Your task to perform on an android device: Add razer deathadder to the cart on bestbuy.com, then select checkout. Image 0: 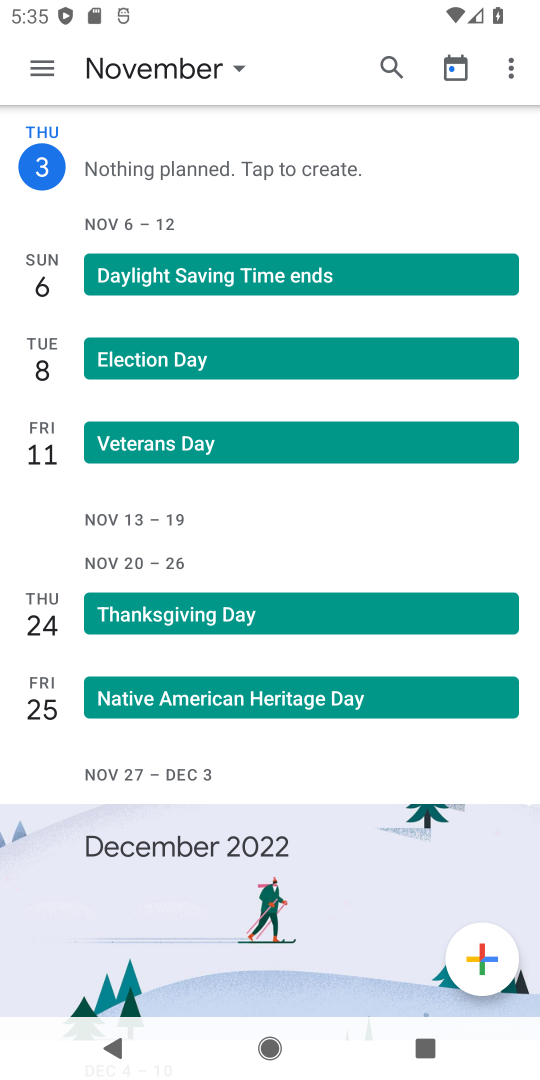
Step 0: press home button
Your task to perform on an android device: Add razer deathadder to the cart on bestbuy.com, then select checkout. Image 1: 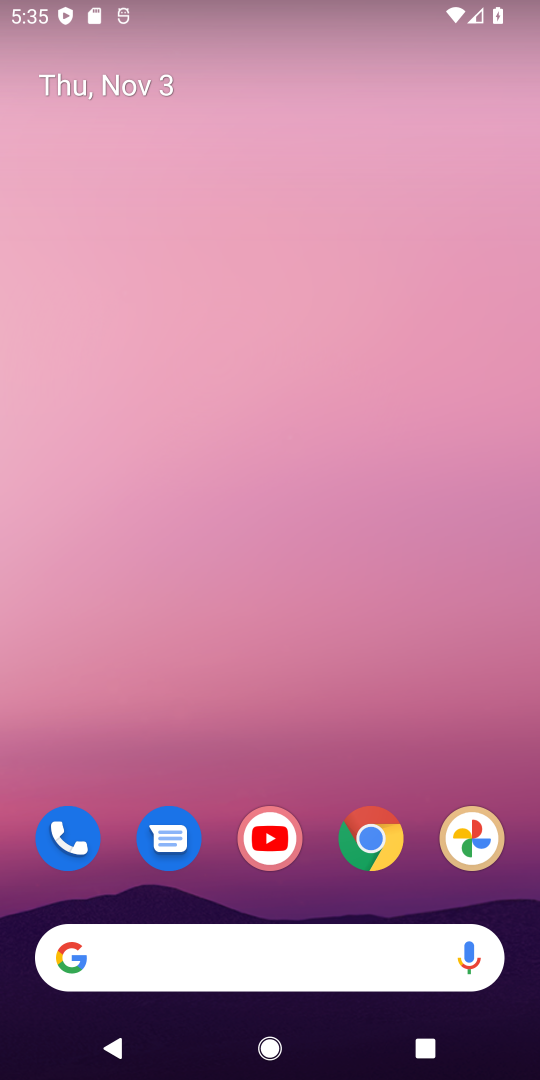
Step 1: click (361, 841)
Your task to perform on an android device: Add razer deathadder to the cart on bestbuy.com, then select checkout. Image 2: 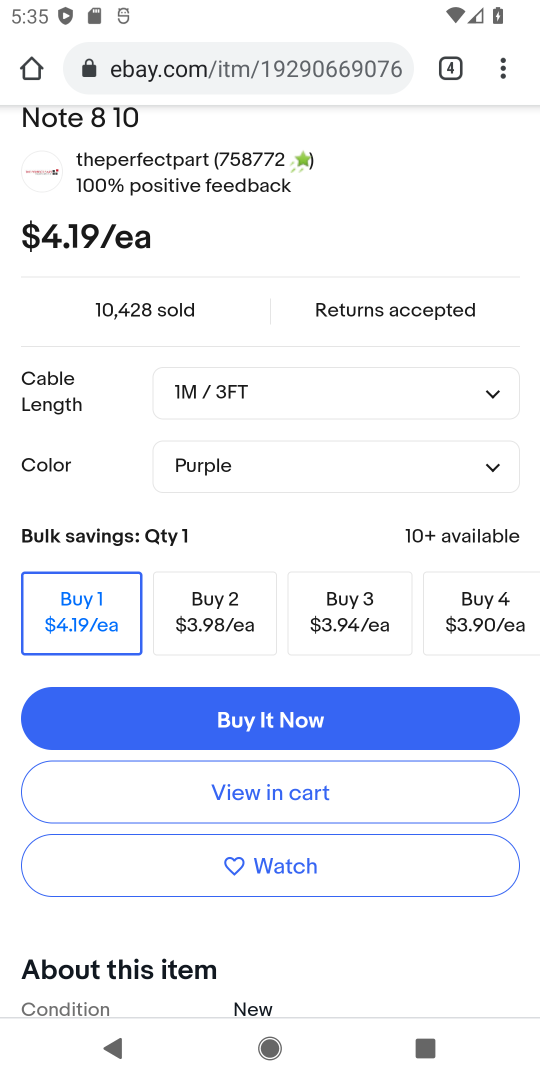
Step 2: click (458, 59)
Your task to perform on an android device: Add razer deathadder to the cart on bestbuy.com, then select checkout. Image 3: 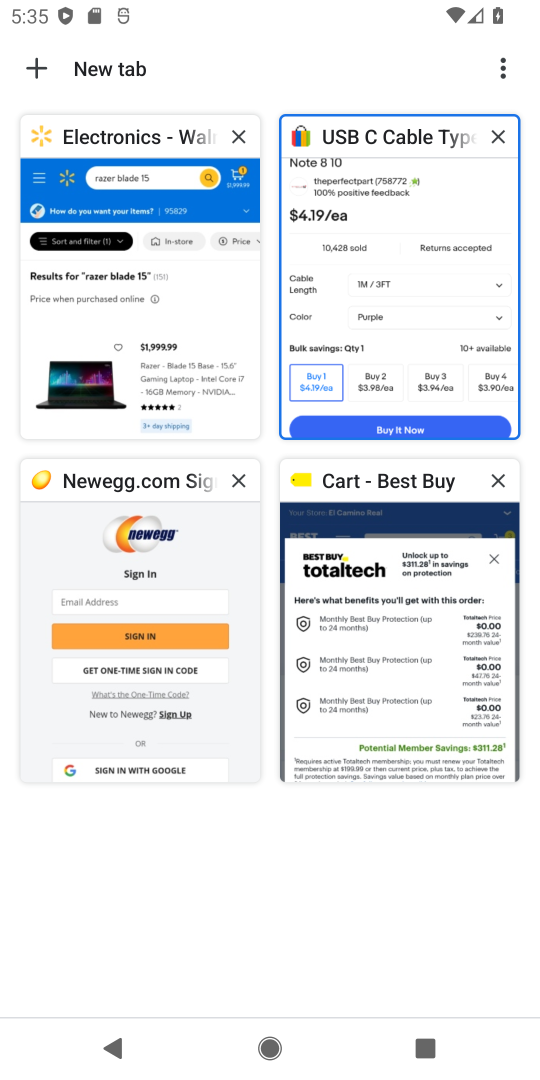
Step 3: click (381, 624)
Your task to perform on an android device: Add razer deathadder to the cart on bestbuy.com, then select checkout. Image 4: 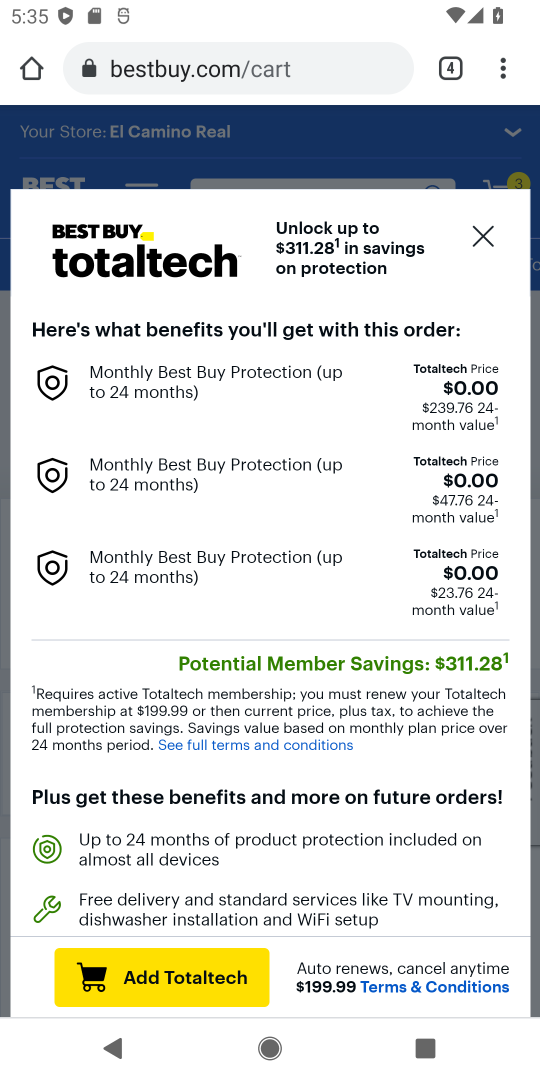
Step 4: click (477, 228)
Your task to perform on an android device: Add razer deathadder to the cart on bestbuy.com, then select checkout. Image 5: 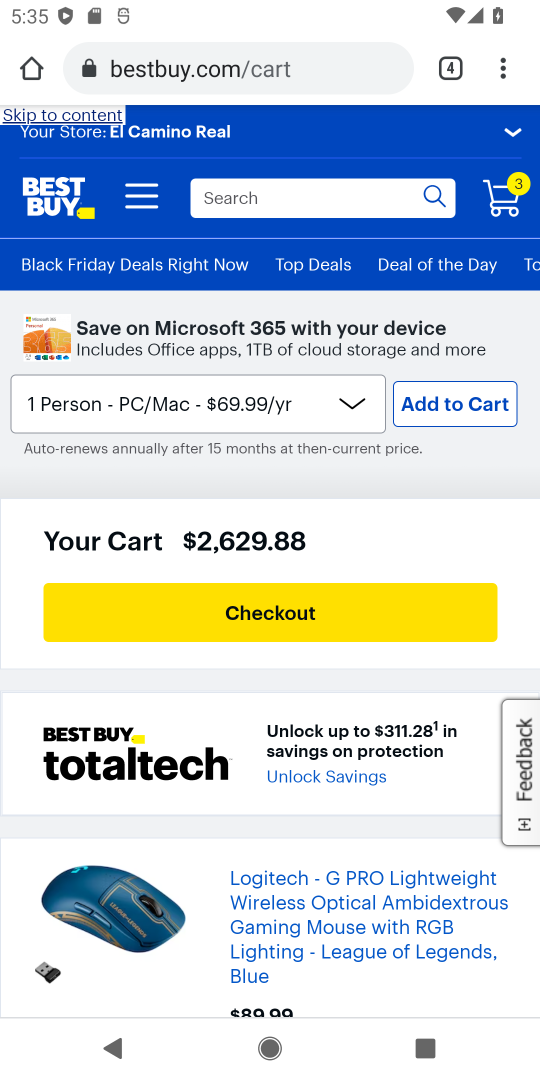
Step 5: click (277, 208)
Your task to perform on an android device: Add razer deathadder to the cart on bestbuy.com, then select checkout. Image 6: 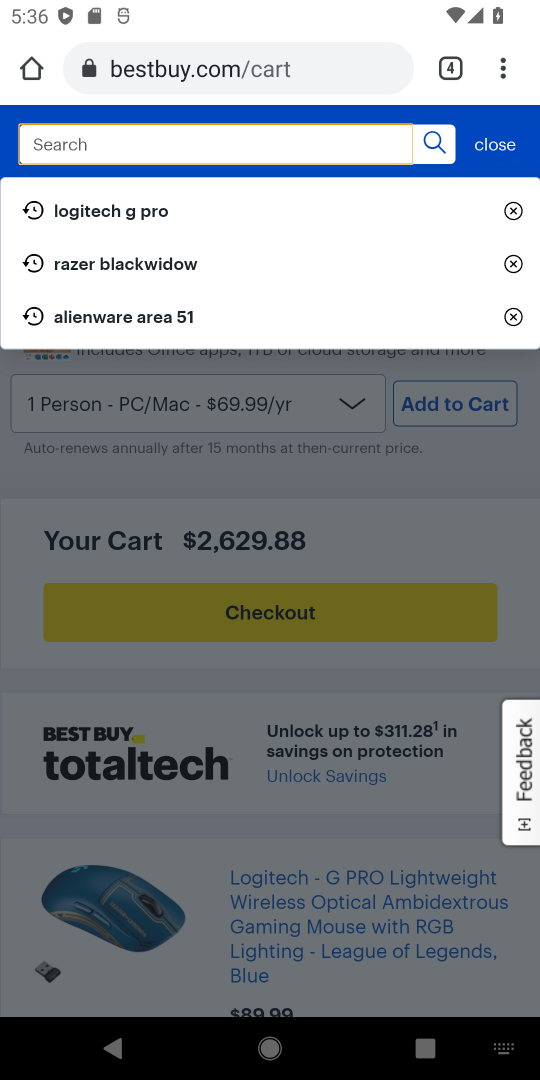
Step 6: type "razer deathadder"
Your task to perform on an android device: Add razer deathadder to the cart on bestbuy.com, then select checkout. Image 7: 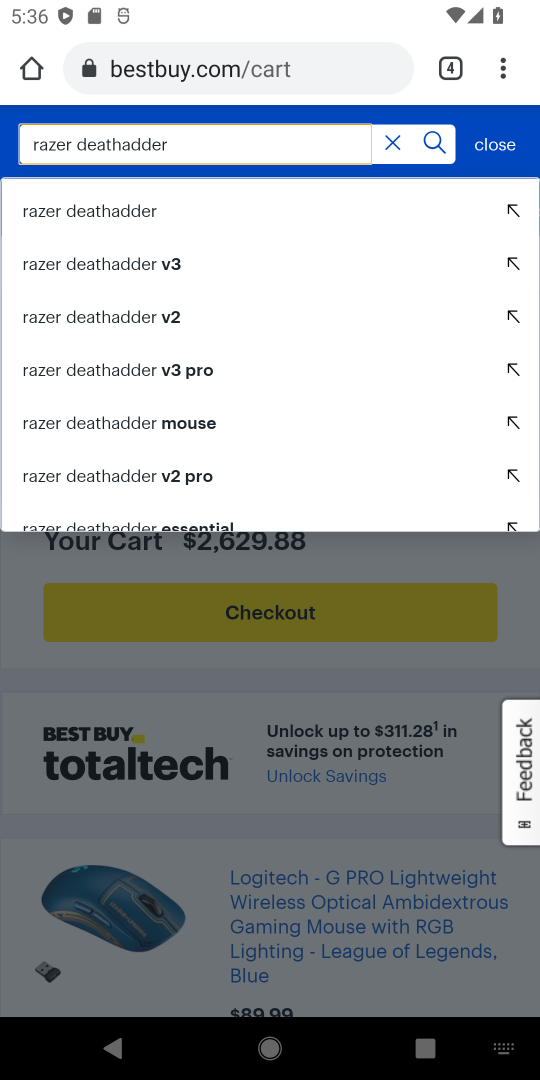
Step 7: click (131, 214)
Your task to perform on an android device: Add razer deathadder to the cart on bestbuy.com, then select checkout. Image 8: 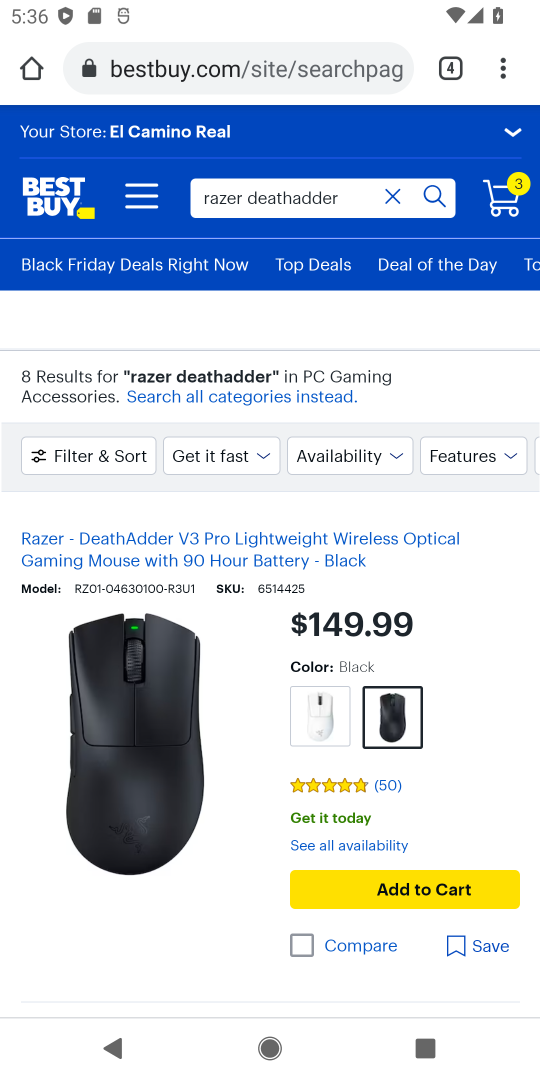
Step 8: click (436, 883)
Your task to perform on an android device: Add razer deathadder to the cart on bestbuy.com, then select checkout. Image 9: 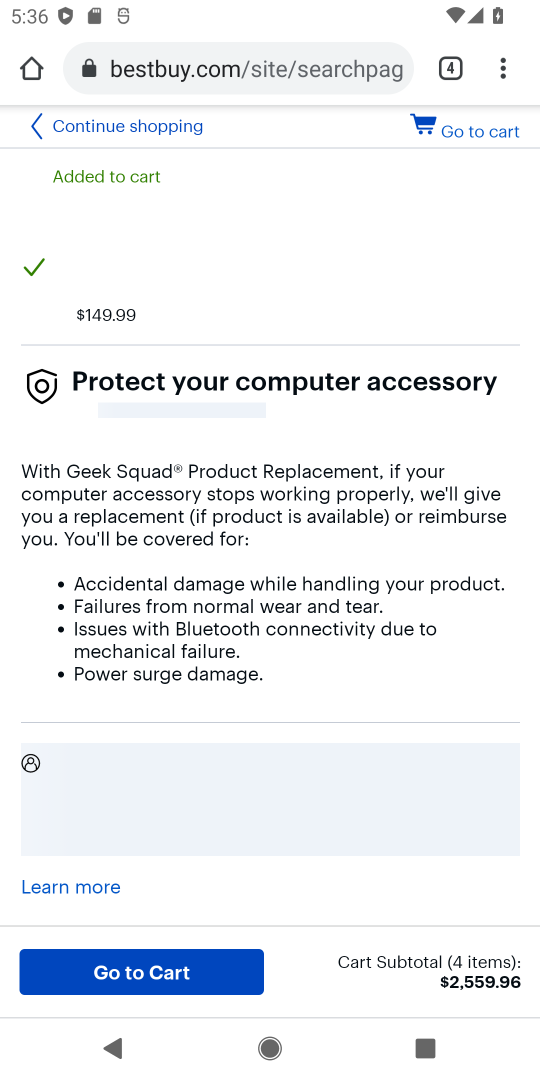
Step 9: click (161, 957)
Your task to perform on an android device: Add razer deathadder to the cart on bestbuy.com, then select checkout. Image 10: 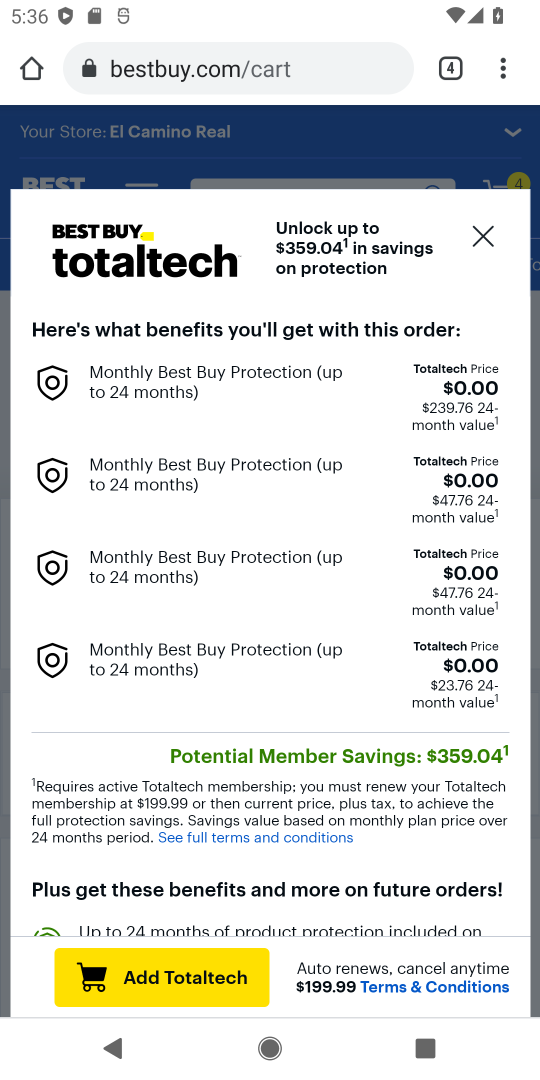
Step 10: click (486, 234)
Your task to perform on an android device: Add razer deathadder to the cart on bestbuy.com, then select checkout. Image 11: 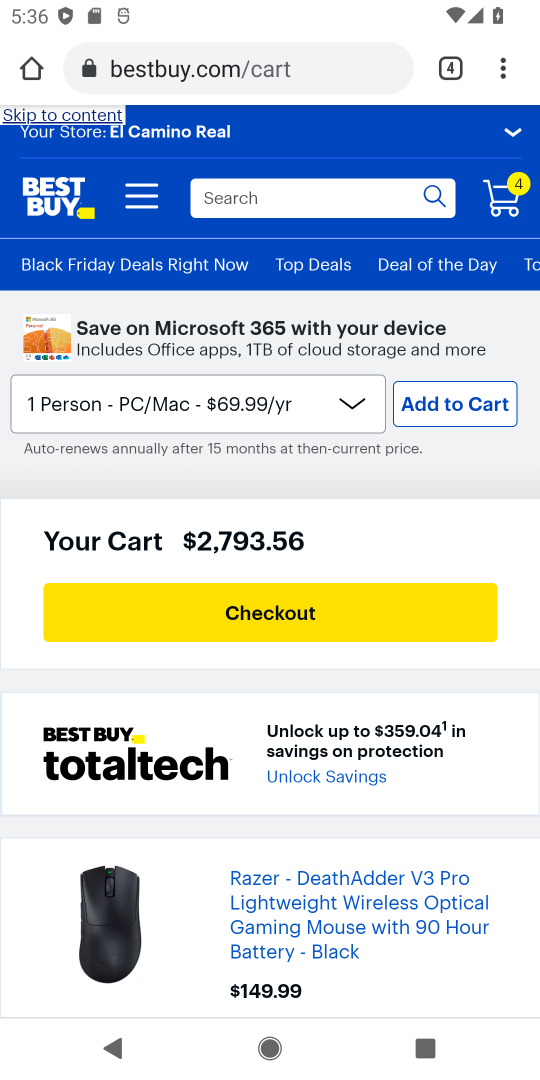
Step 11: click (243, 617)
Your task to perform on an android device: Add razer deathadder to the cart on bestbuy.com, then select checkout. Image 12: 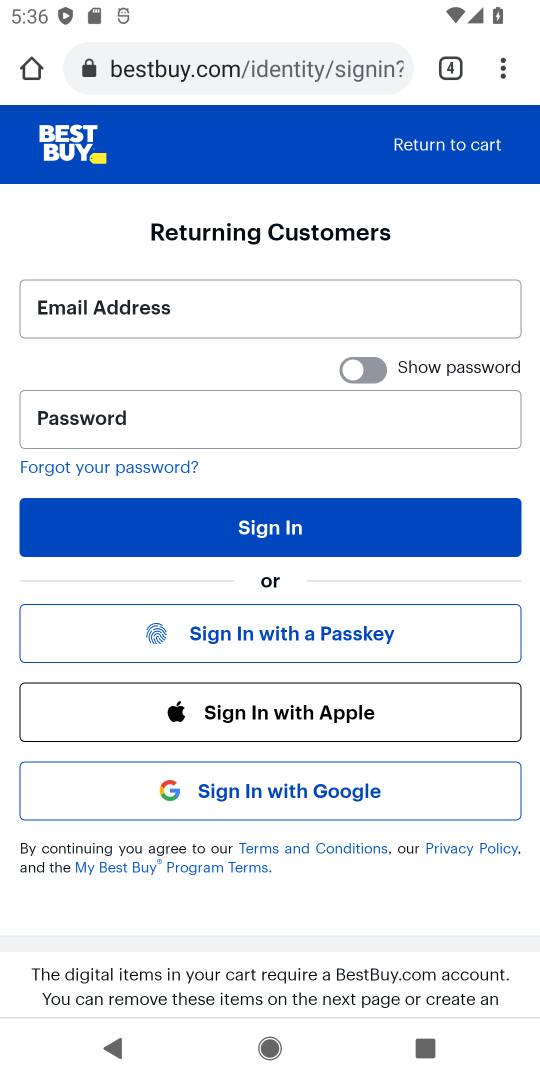
Step 12: click (481, 151)
Your task to perform on an android device: Add razer deathadder to the cart on bestbuy.com, then select checkout. Image 13: 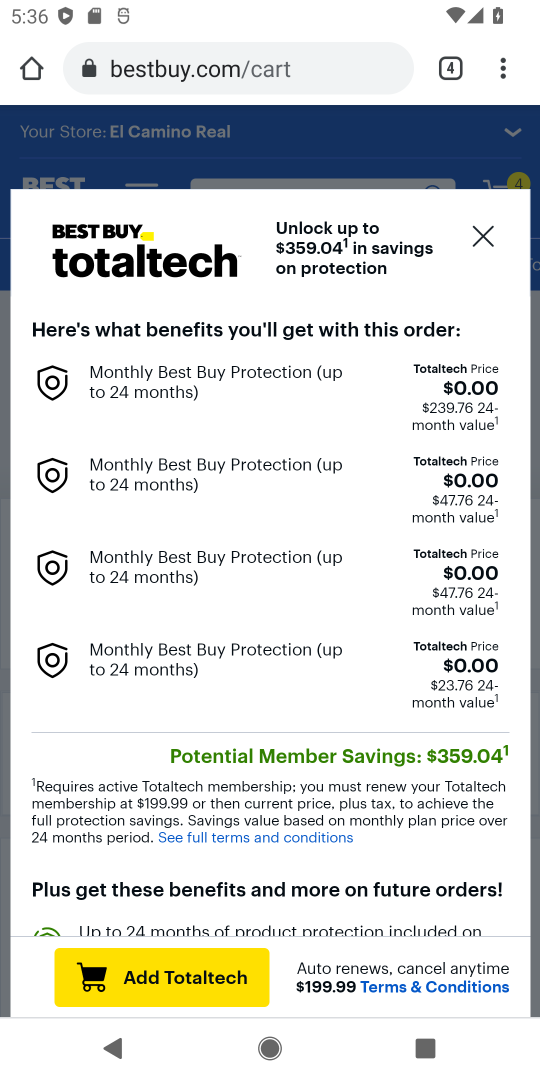
Step 13: click (332, 612)
Your task to perform on an android device: Add razer deathadder to the cart on bestbuy.com, then select checkout. Image 14: 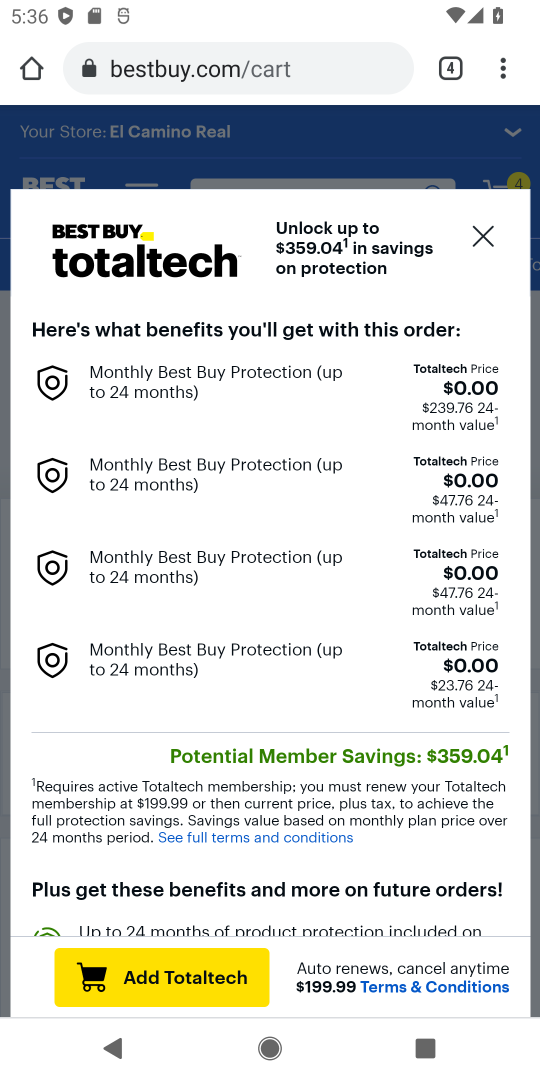
Step 14: click (484, 232)
Your task to perform on an android device: Add razer deathadder to the cart on bestbuy.com, then select checkout. Image 15: 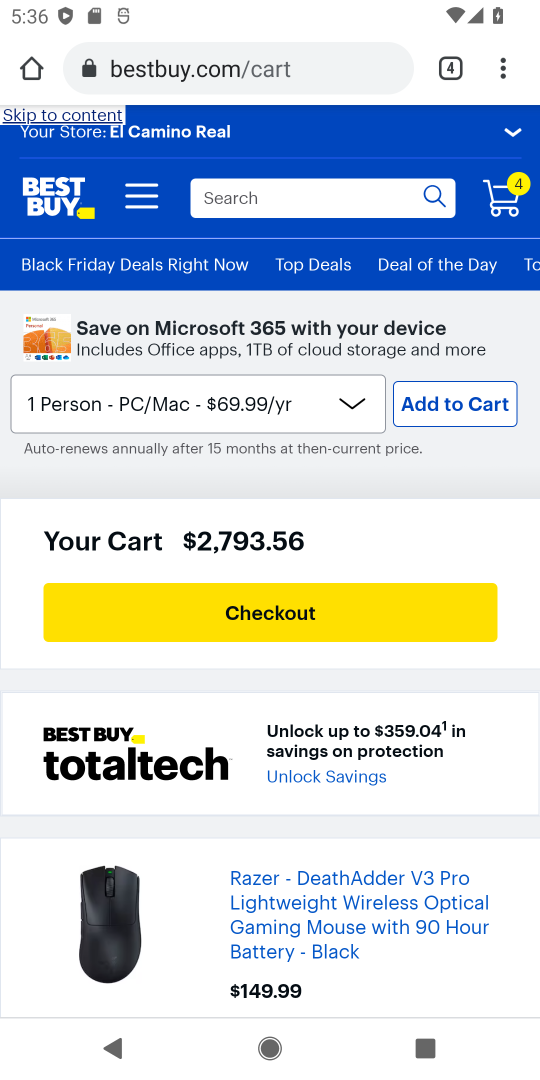
Step 15: click (283, 605)
Your task to perform on an android device: Add razer deathadder to the cart on bestbuy.com, then select checkout. Image 16: 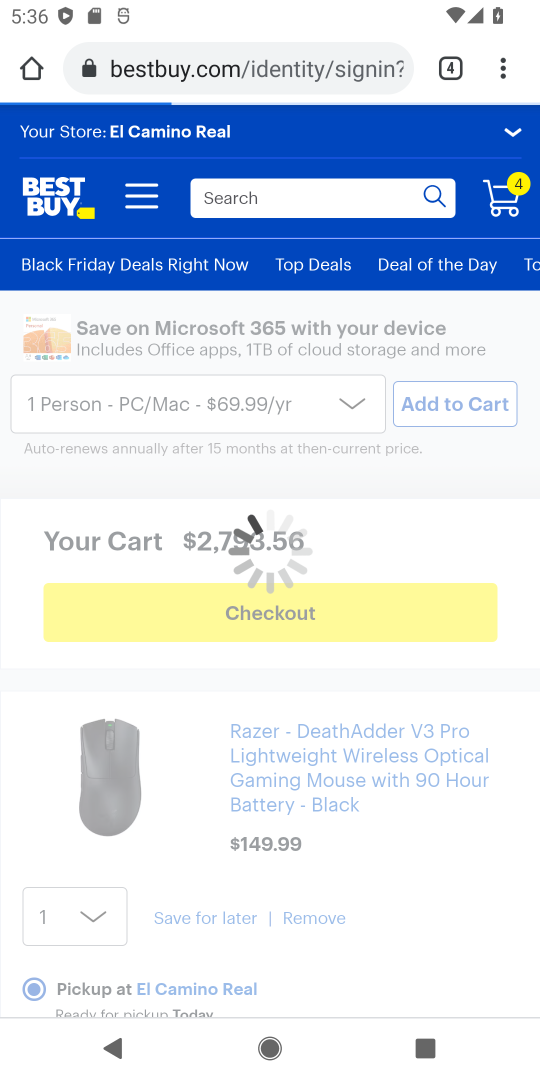
Step 16: task complete